Your task to perform on an android device: Toggle the flashlight Image 0: 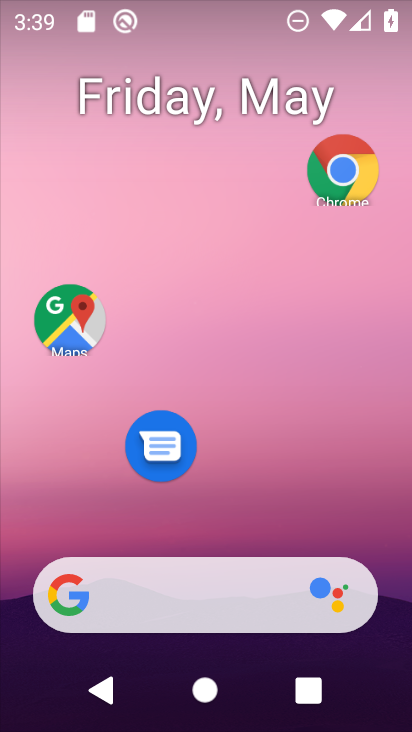
Step 0: drag from (220, 2) to (232, 378)
Your task to perform on an android device: Toggle the flashlight Image 1: 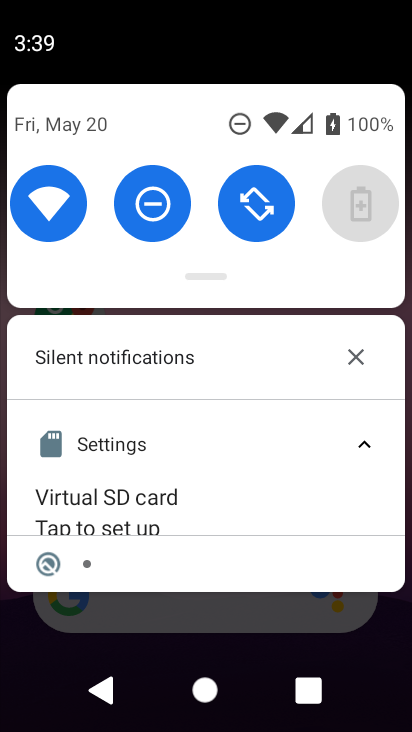
Step 1: task complete